Your task to perform on an android device: Empty the shopping cart on target. Image 0: 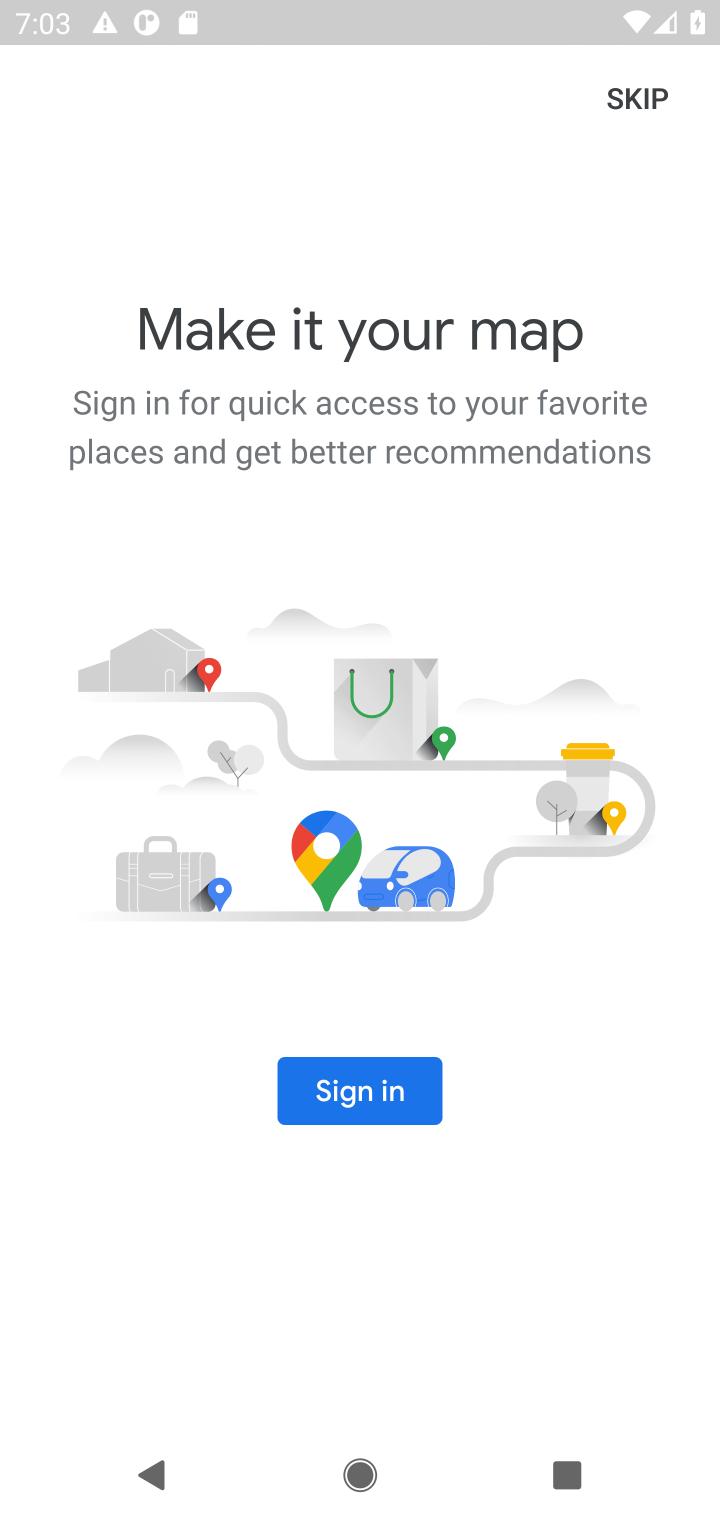
Step 0: press home button
Your task to perform on an android device: Empty the shopping cart on target. Image 1: 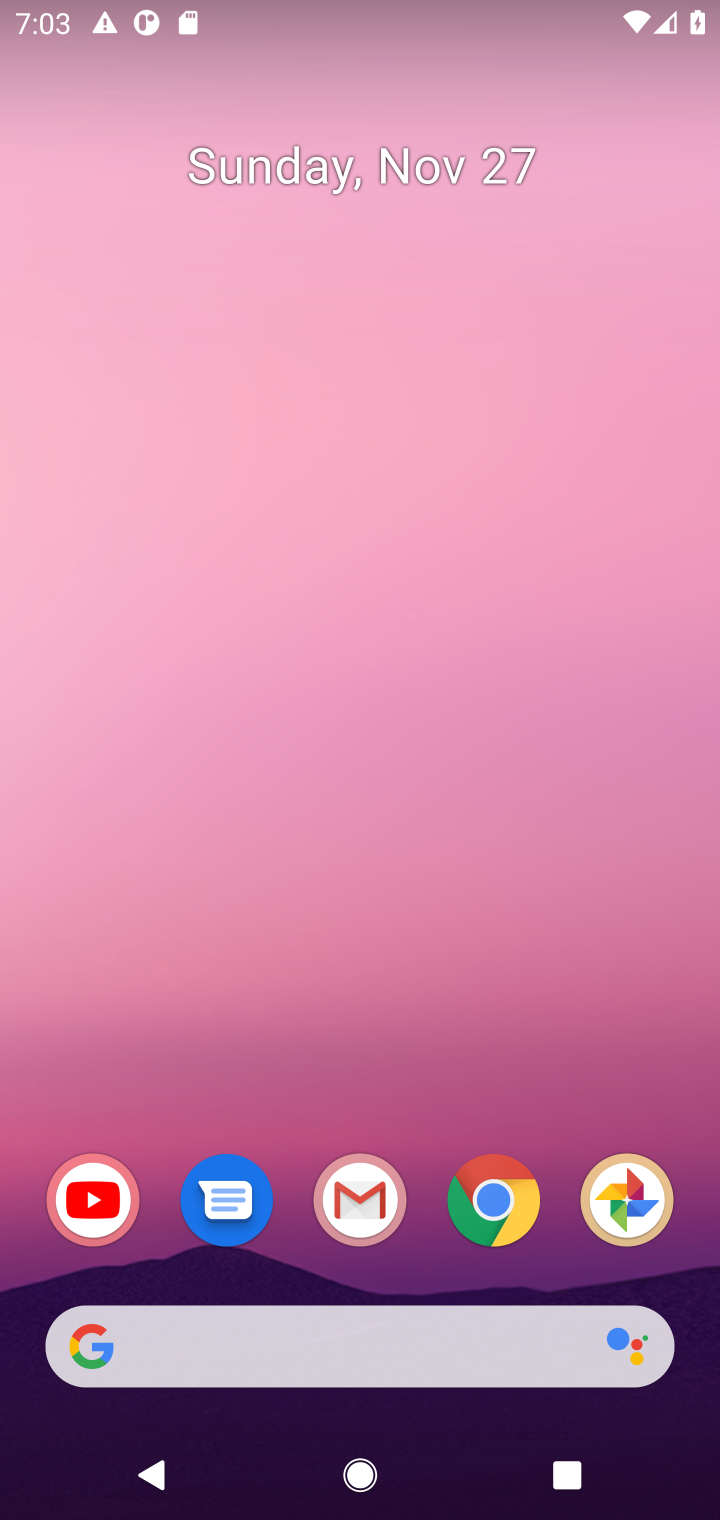
Step 1: click (496, 1212)
Your task to perform on an android device: Empty the shopping cart on target. Image 2: 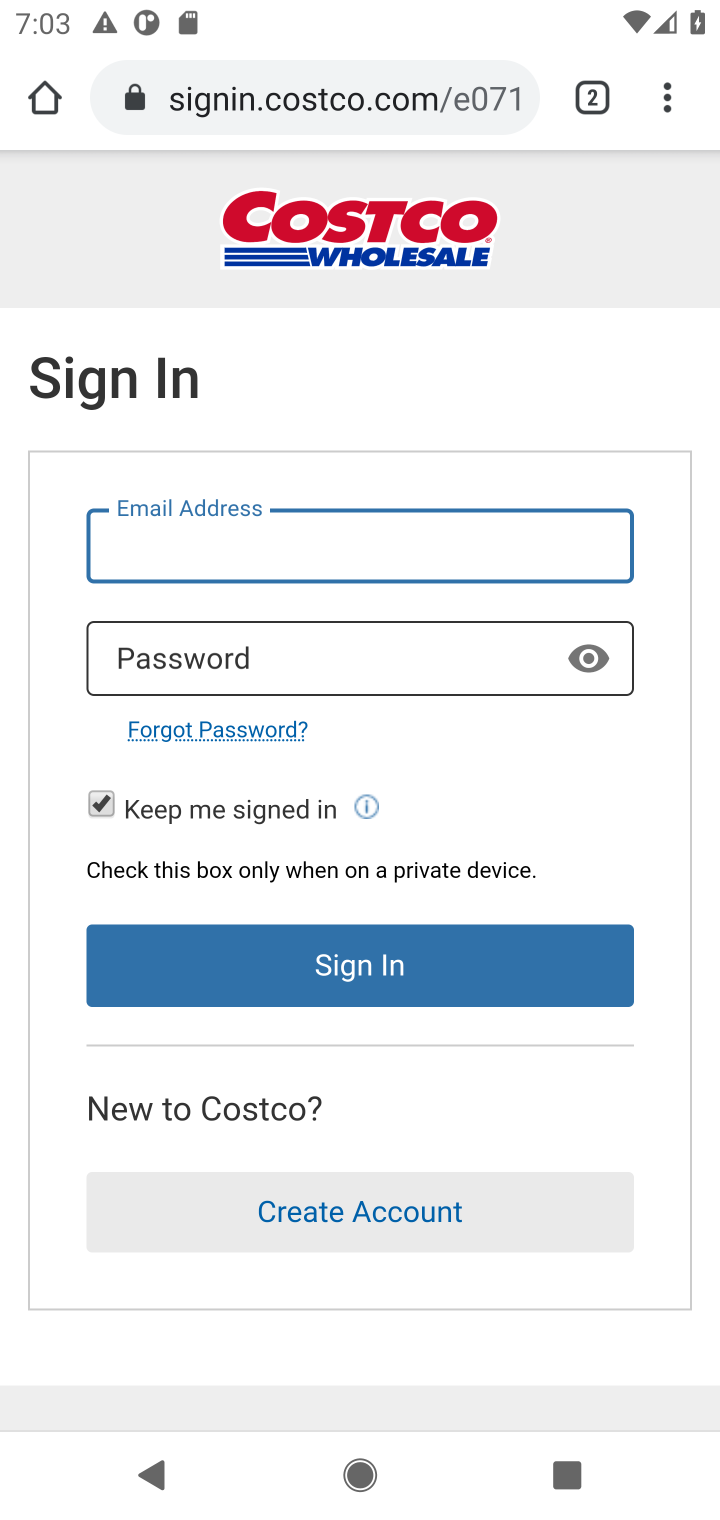
Step 2: click (318, 107)
Your task to perform on an android device: Empty the shopping cart on target. Image 3: 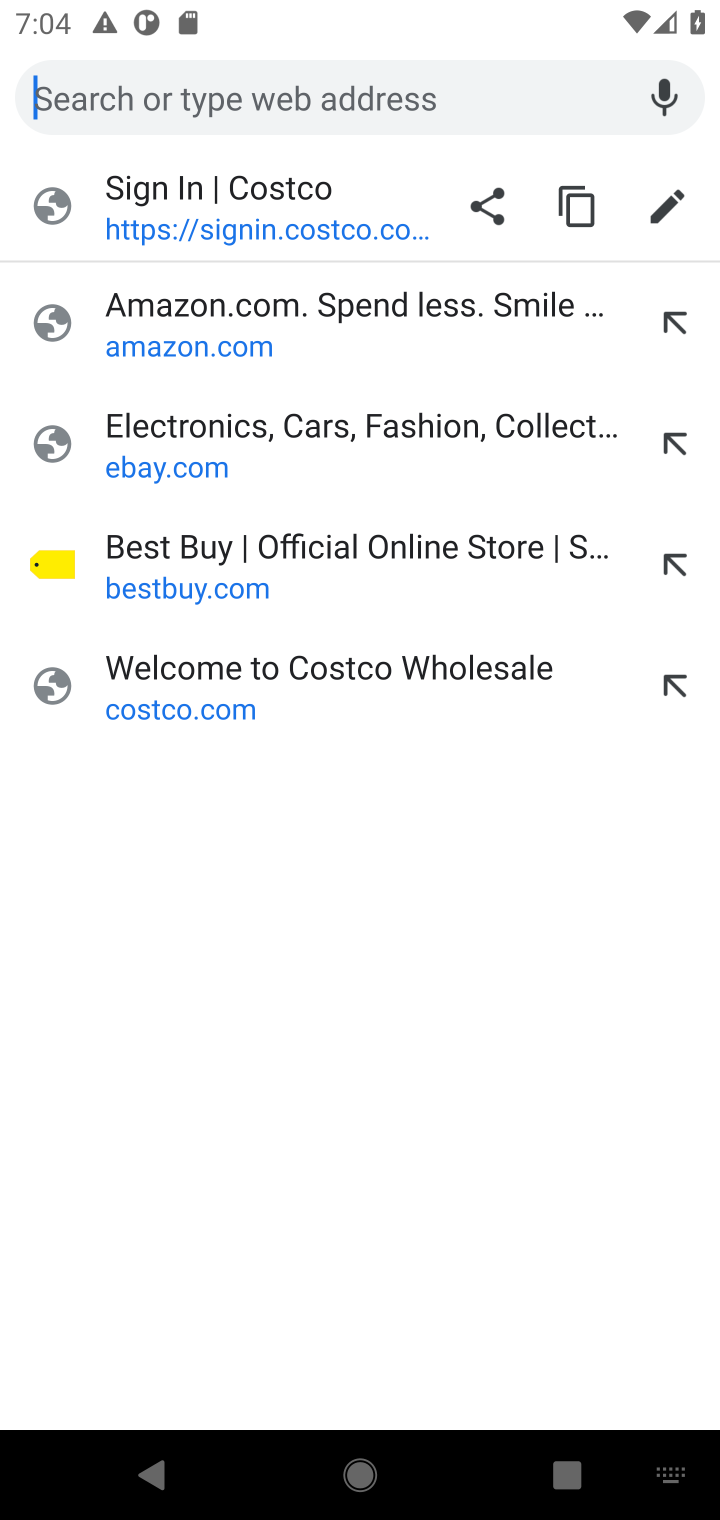
Step 3: type "target.com"
Your task to perform on an android device: Empty the shopping cart on target. Image 4: 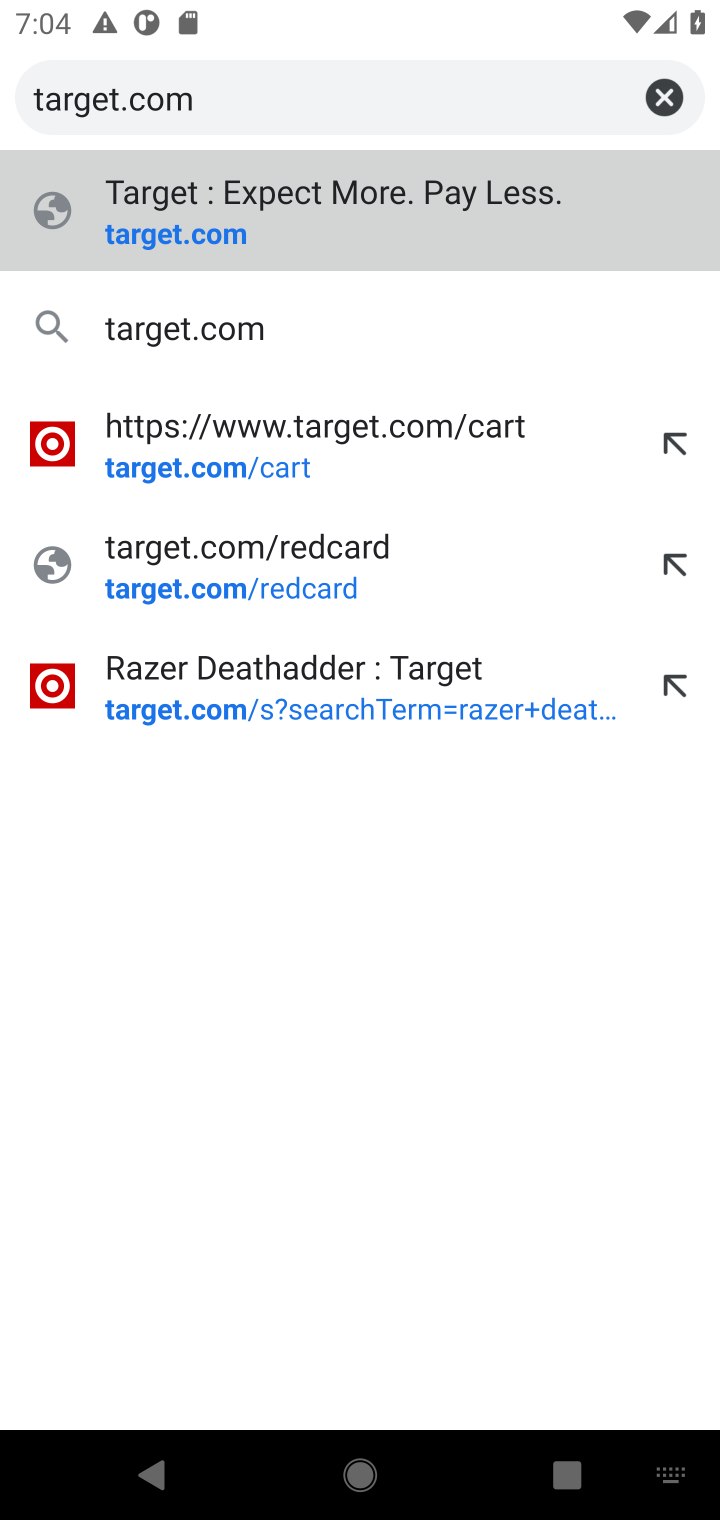
Step 4: click (170, 250)
Your task to perform on an android device: Empty the shopping cart on target. Image 5: 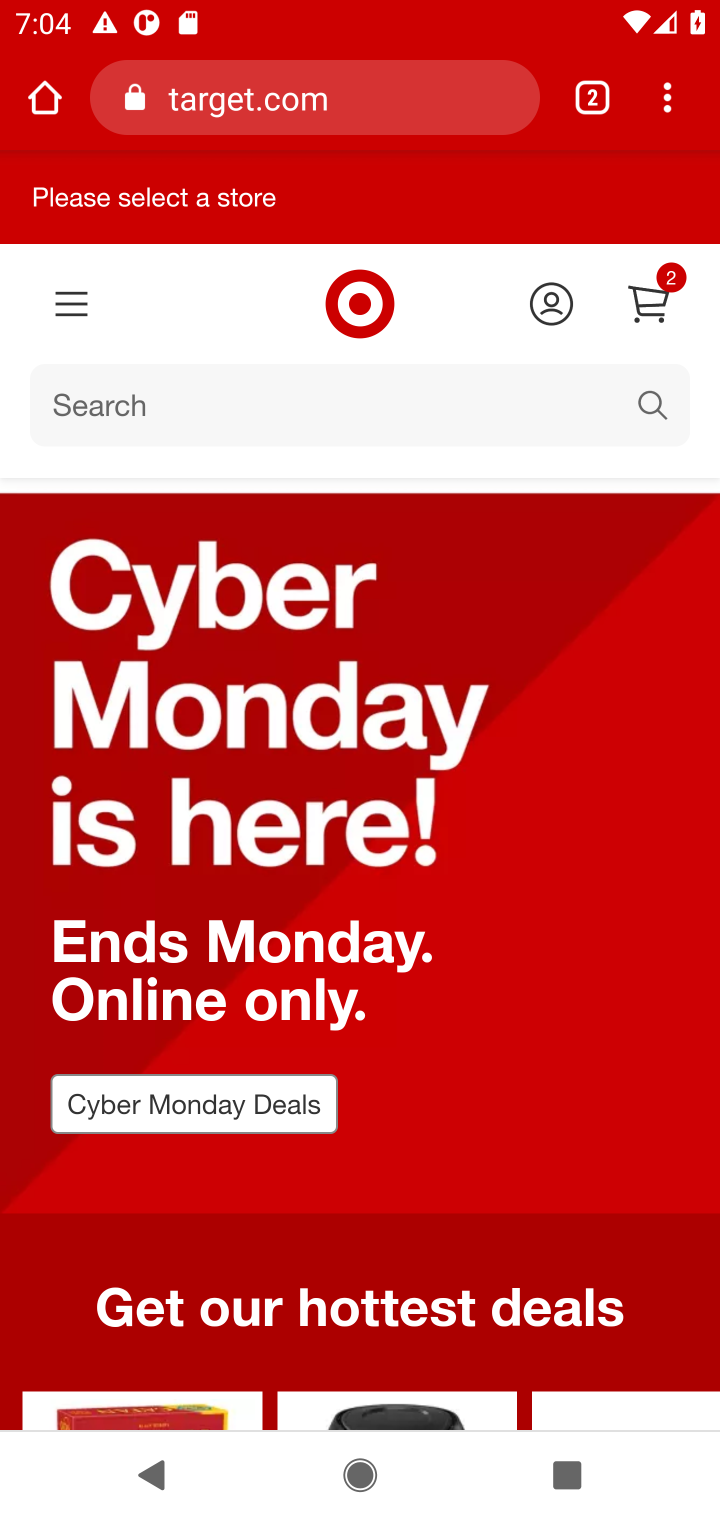
Step 5: click (643, 298)
Your task to perform on an android device: Empty the shopping cart on target. Image 6: 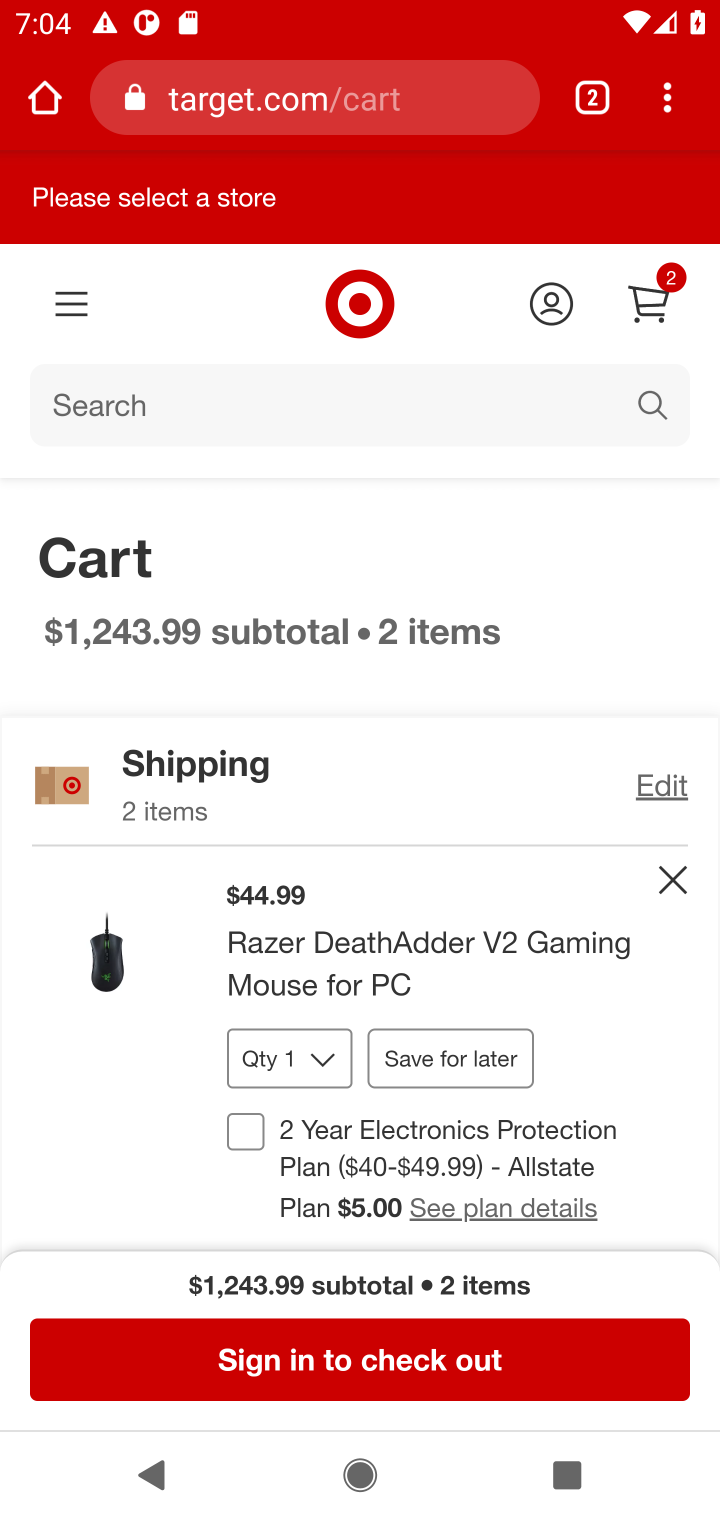
Step 6: click (687, 879)
Your task to perform on an android device: Empty the shopping cart on target. Image 7: 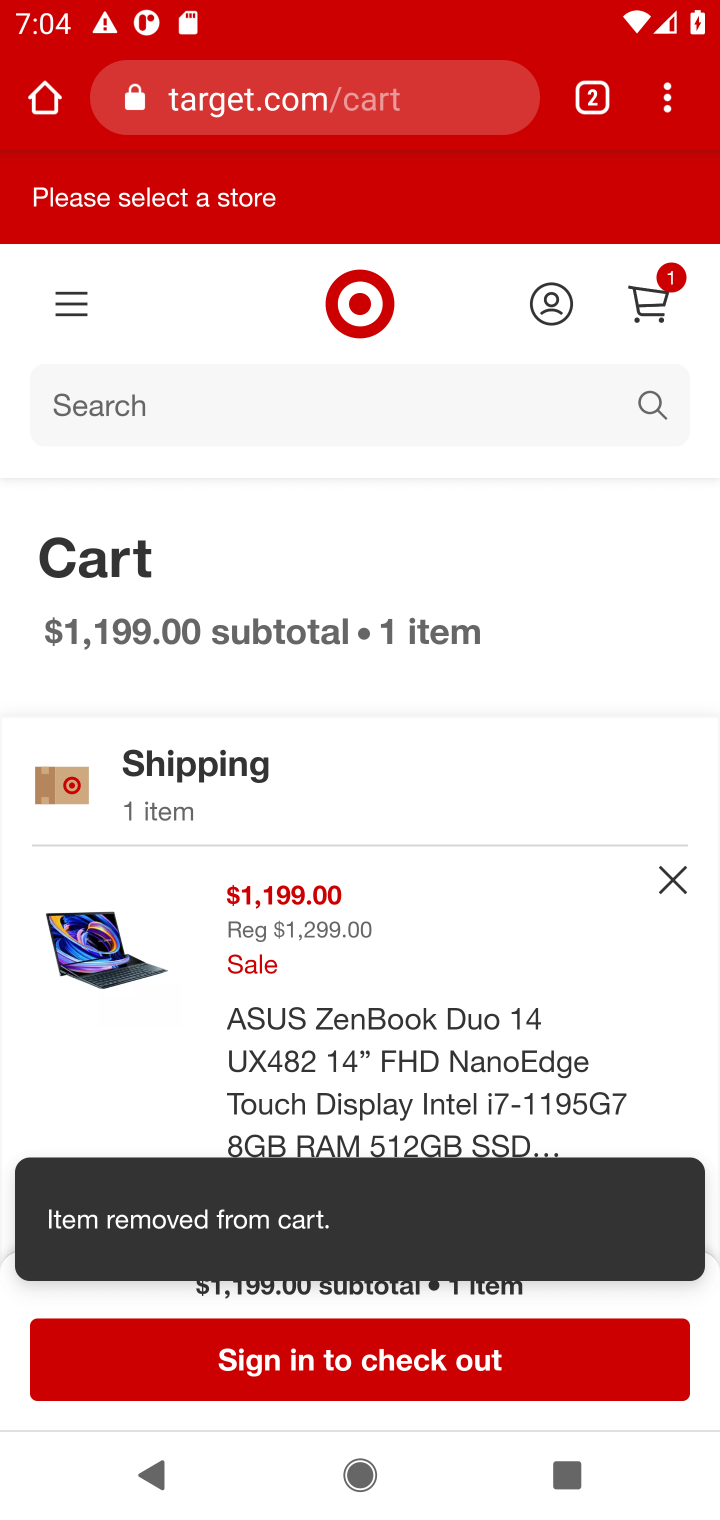
Step 7: click (670, 879)
Your task to perform on an android device: Empty the shopping cart on target. Image 8: 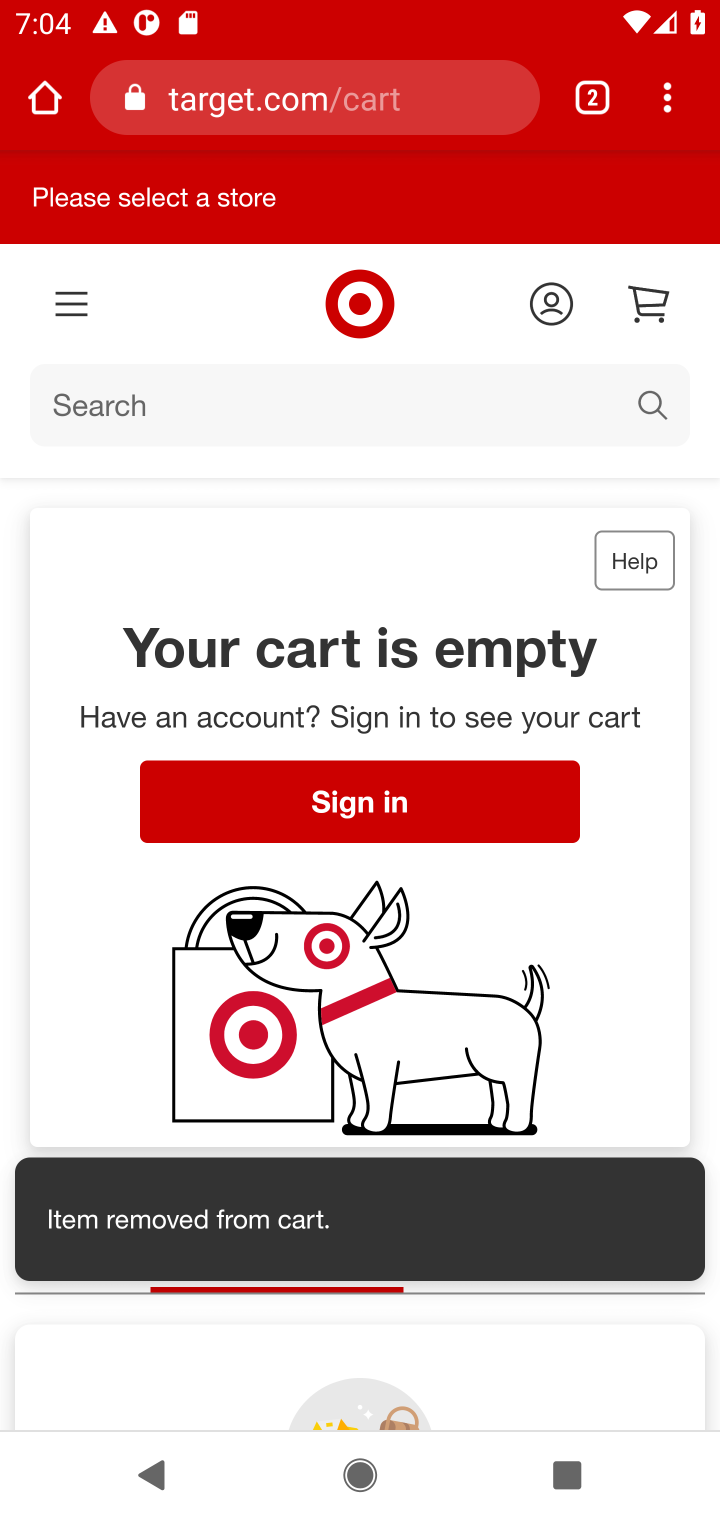
Step 8: task complete